Your task to perform on an android device: turn pop-ups off in chrome Image 0: 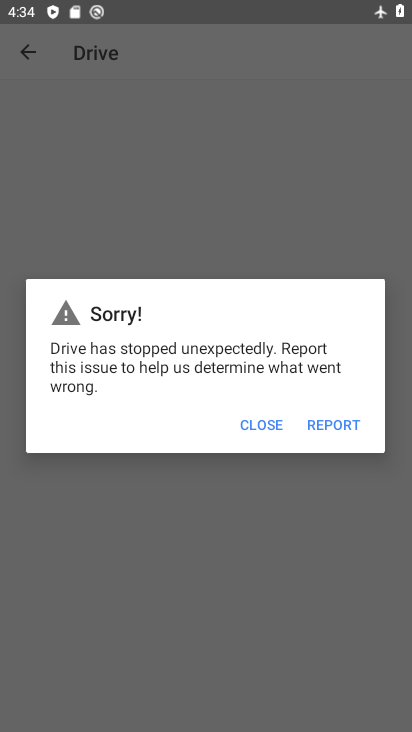
Step 0: press home button
Your task to perform on an android device: turn pop-ups off in chrome Image 1: 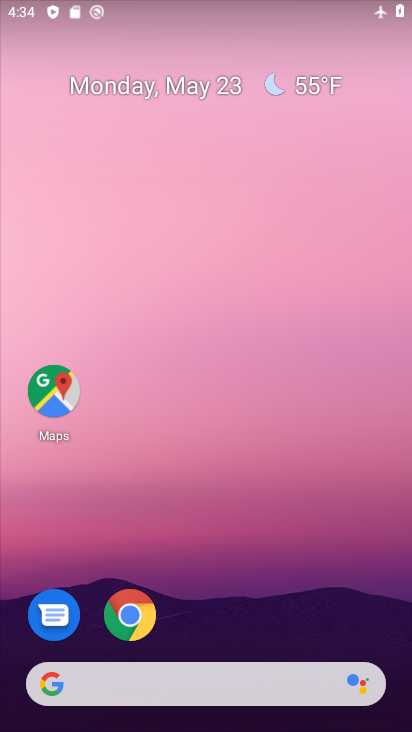
Step 1: drag from (377, 615) to (388, 133)
Your task to perform on an android device: turn pop-ups off in chrome Image 2: 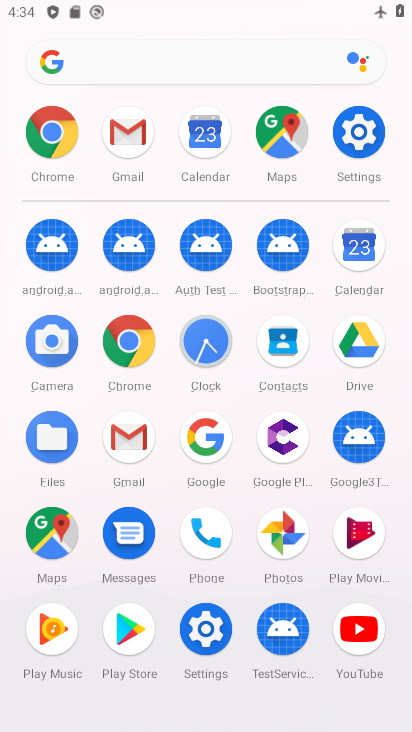
Step 2: click (139, 346)
Your task to perform on an android device: turn pop-ups off in chrome Image 3: 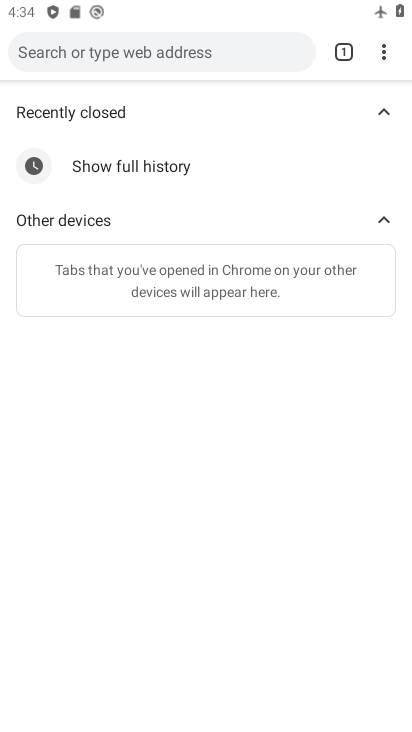
Step 3: click (383, 58)
Your task to perform on an android device: turn pop-ups off in chrome Image 4: 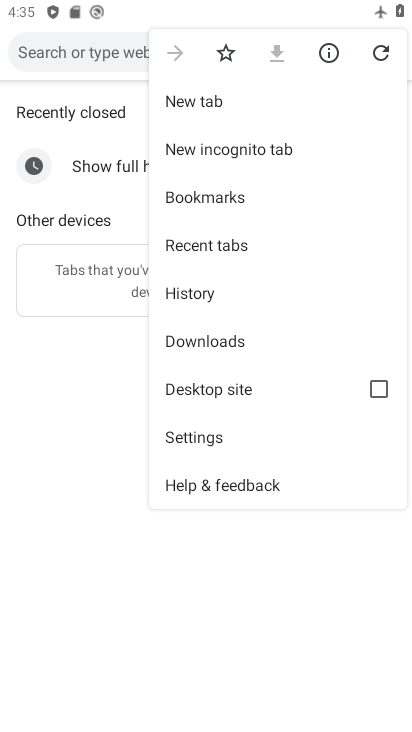
Step 4: click (244, 444)
Your task to perform on an android device: turn pop-ups off in chrome Image 5: 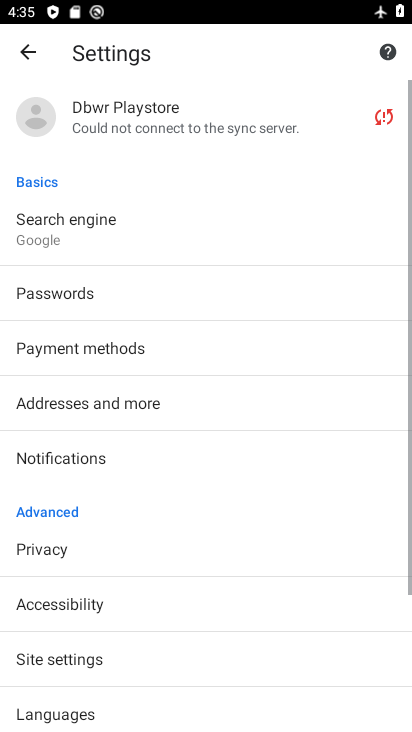
Step 5: drag from (264, 550) to (283, 465)
Your task to perform on an android device: turn pop-ups off in chrome Image 6: 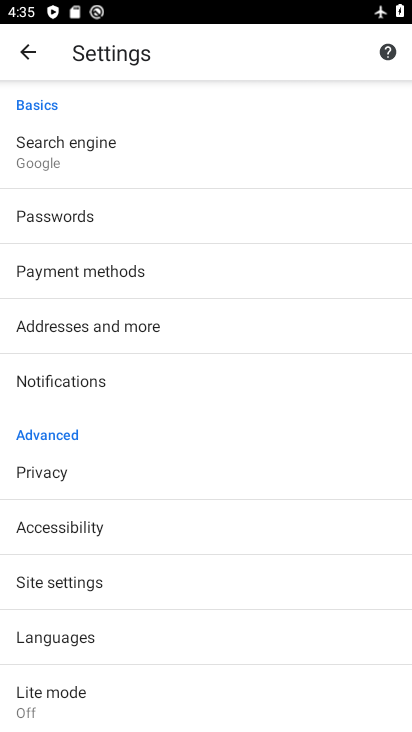
Step 6: drag from (293, 567) to (311, 495)
Your task to perform on an android device: turn pop-ups off in chrome Image 7: 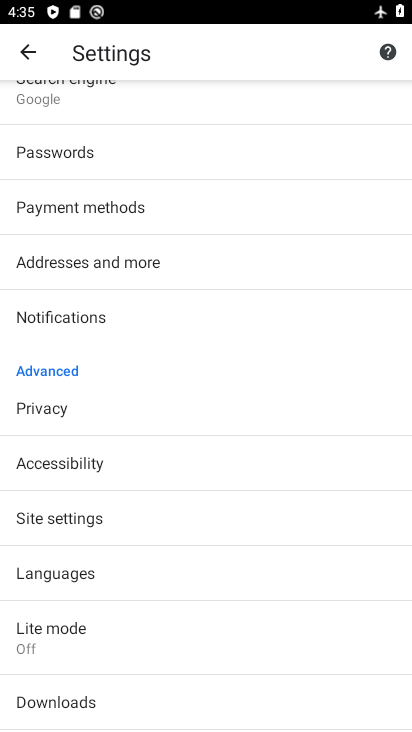
Step 7: drag from (315, 575) to (328, 496)
Your task to perform on an android device: turn pop-ups off in chrome Image 8: 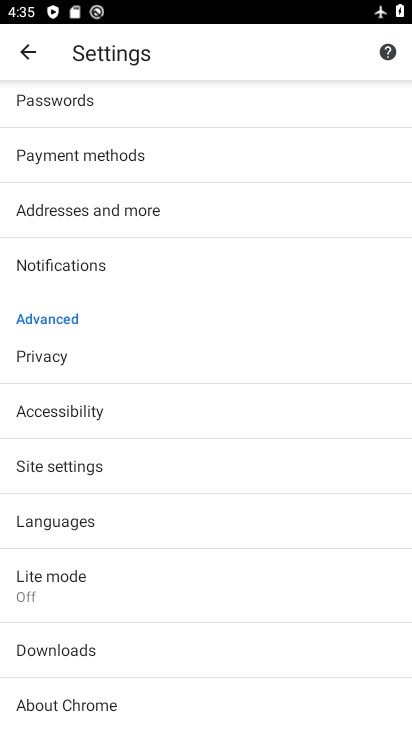
Step 8: drag from (315, 569) to (327, 501)
Your task to perform on an android device: turn pop-ups off in chrome Image 9: 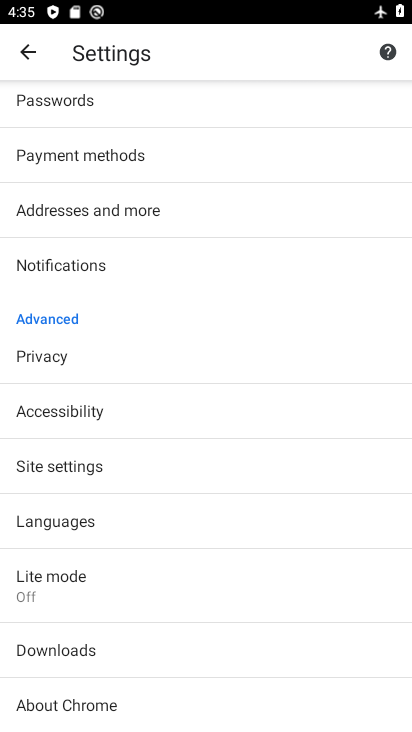
Step 9: drag from (323, 613) to (344, 463)
Your task to perform on an android device: turn pop-ups off in chrome Image 10: 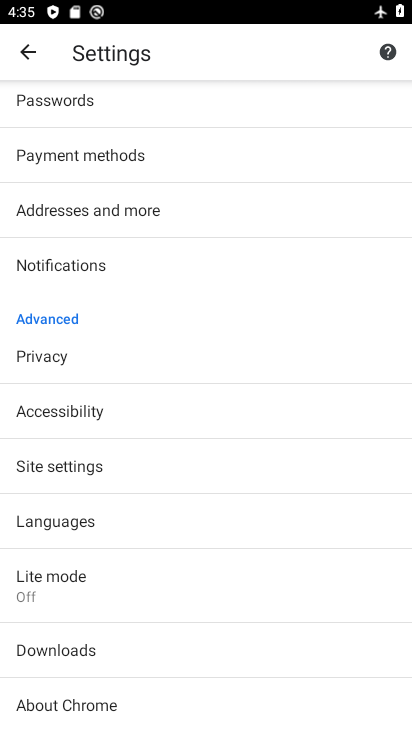
Step 10: drag from (352, 418) to (354, 514)
Your task to perform on an android device: turn pop-ups off in chrome Image 11: 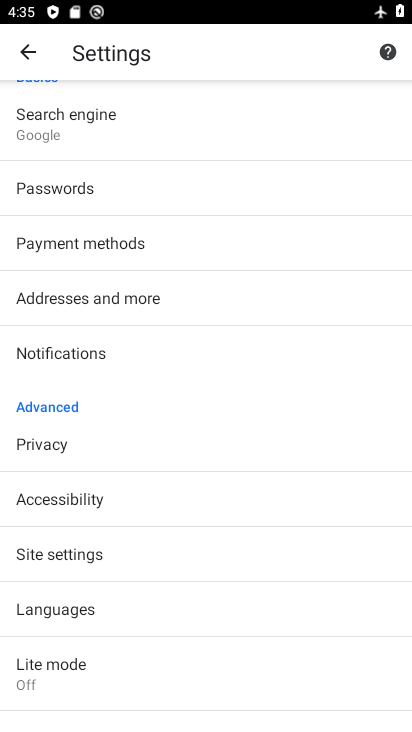
Step 11: click (309, 563)
Your task to perform on an android device: turn pop-ups off in chrome Image 12: 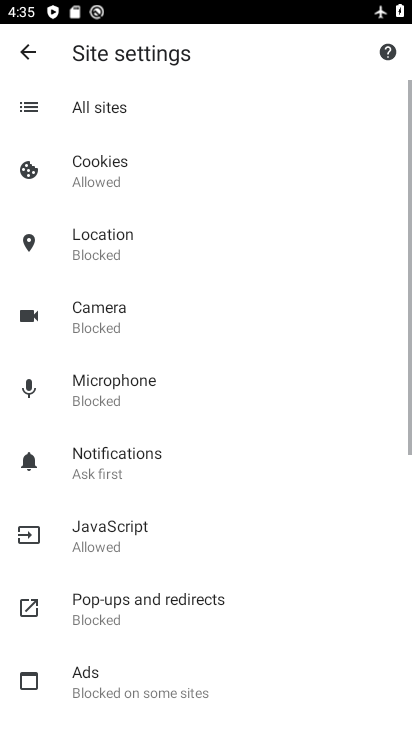
Step 12: drag from (331, 562) to (340, 512)
Your task to perform on an android device: turn pop-ups off in chrome Image 13: 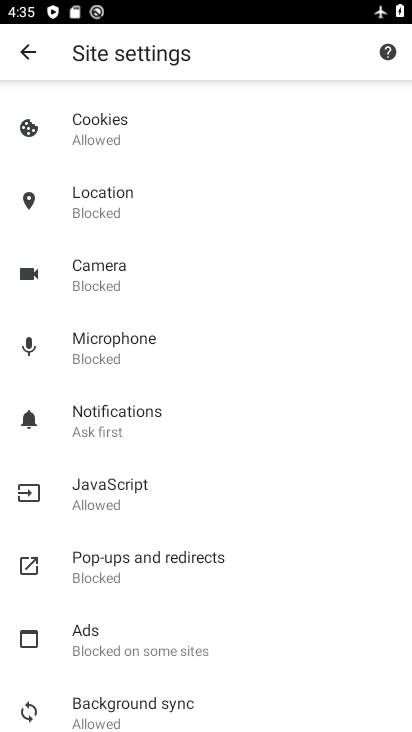
Step 13: drag from (349, 594) to (361, 493)
Your task to perform on an android device: turn pop-ups off in chrome Image 14: 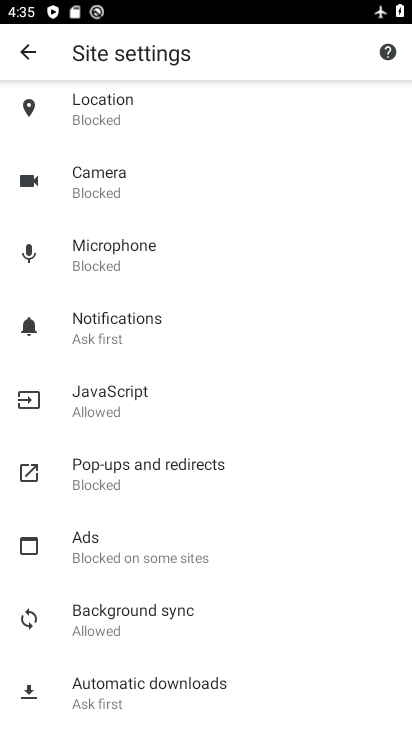
Step 14: drag from (345, 616) to (360, 495)
Your task to perform on an android device: turn pop-ups off in chrome Image 15: 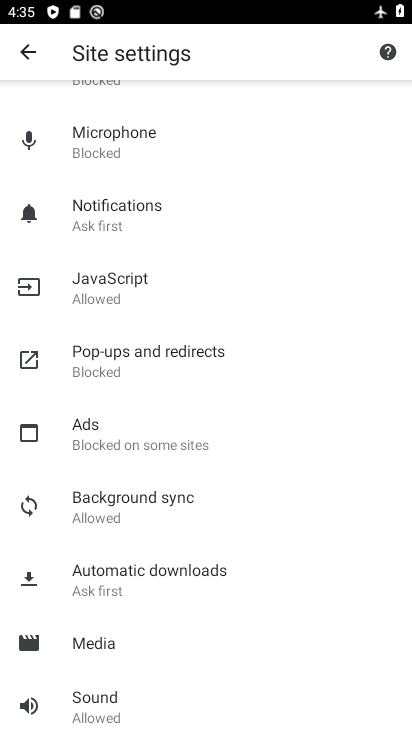
Step 15: drag from (345, 626) to (365, 529)
Your task to perform on an android device: turn pop-ups off in chrome Image 16: 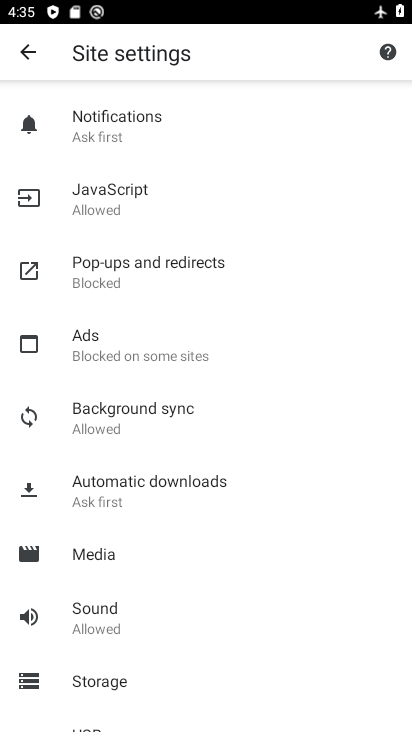
Step 16: drag from (369, 651) to (368, 475)
Your task to perform on an android device: turn pop-ups off in chrome Image 17: 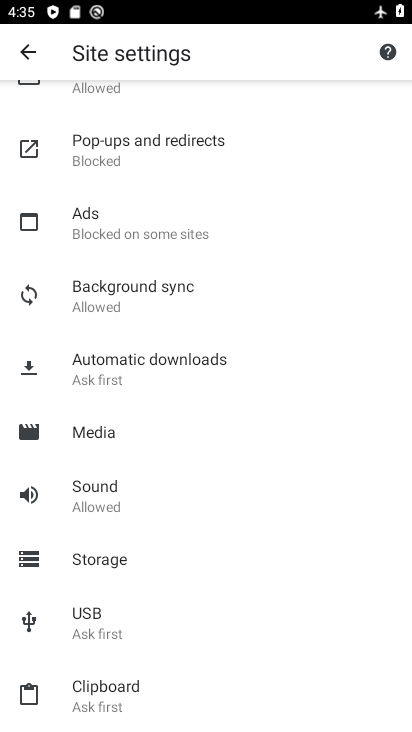
Step 17: drag from (365, 435) to (373, 514)
Your task to perform on an android device: turn pop-ups off in chrome Image 18: 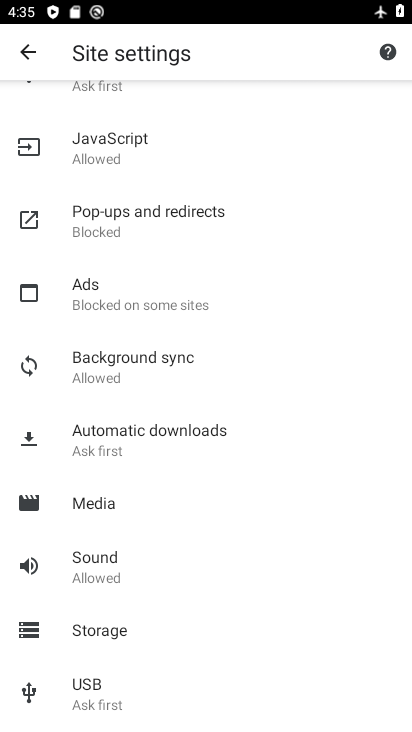
Step 18: drag from (376, 425) to (373, 521)
Your task to perform on an android device: turn pop-ups off in chrome Image 19: 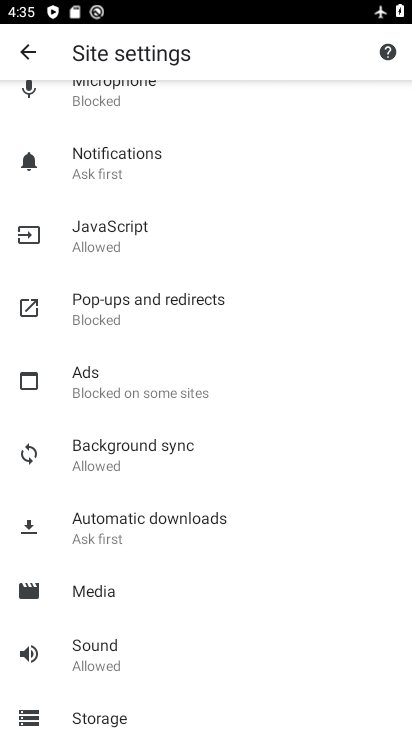
Step 19: drag from (374, 427) to (377, 521)
Your task to perform on an android device: turn pop-ups off in chrome Image 20: 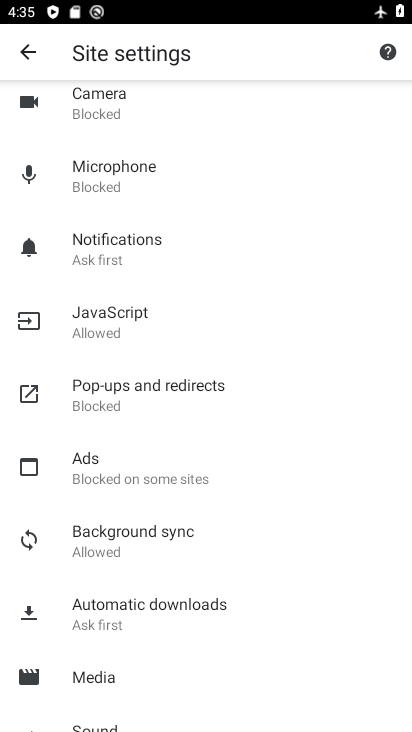
Step 20: drag from (377, 410) to (380, 549)
Your task to perform on an android device: turn pop-ups off in chrome Image 21: 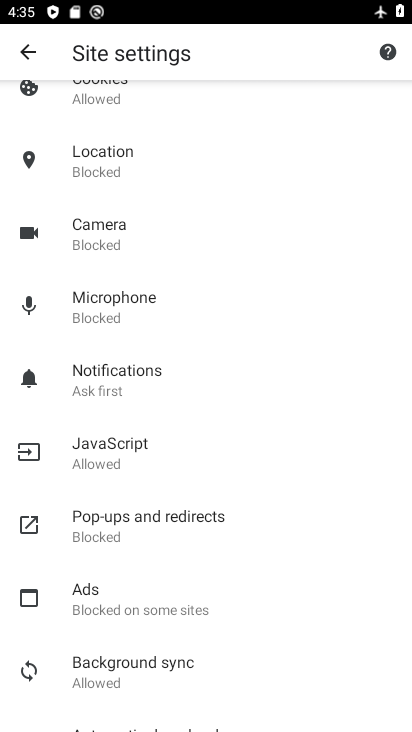
Step 21: drag from (364, 332) to (365, 548)
Your task to perform on an android device: turn pop-ups off in chrome Image 22: 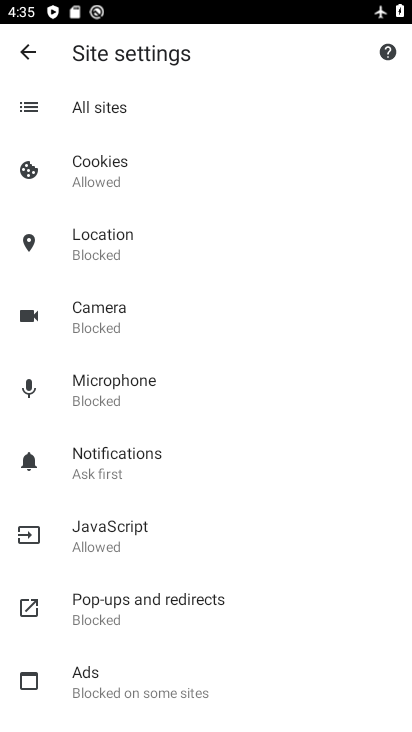
Step 22: click (162, 619)
Your task to perform on an android device: turn pop-ups off in chrome Image 23: 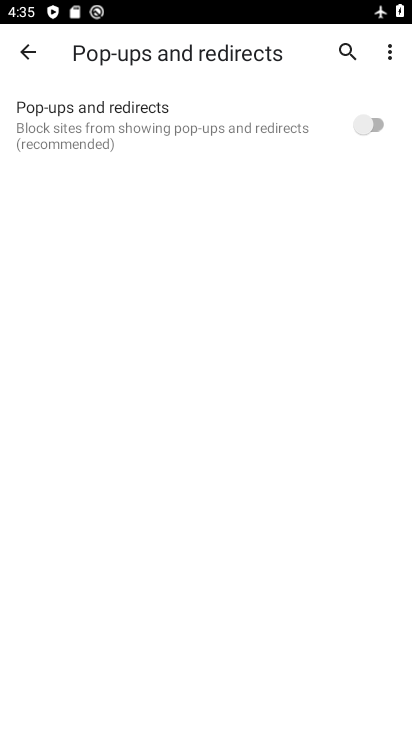
Step 23: task complete